Your task to perform on an android device: open sync settings in chrome Image 0: 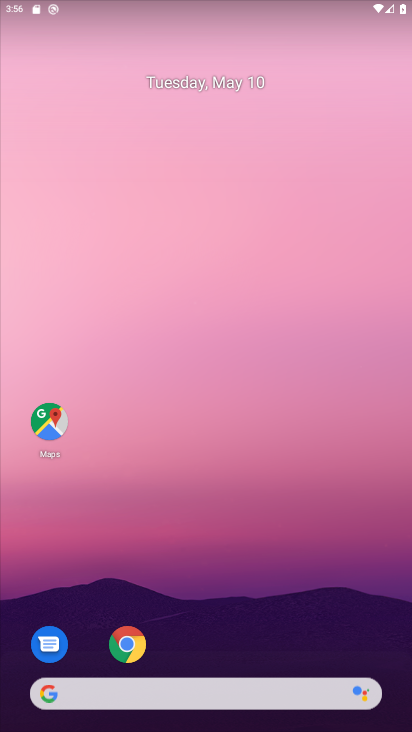
Step 0: click (143, 650)
Your task to perform on an android device: open sync settings in chrome Image 1: 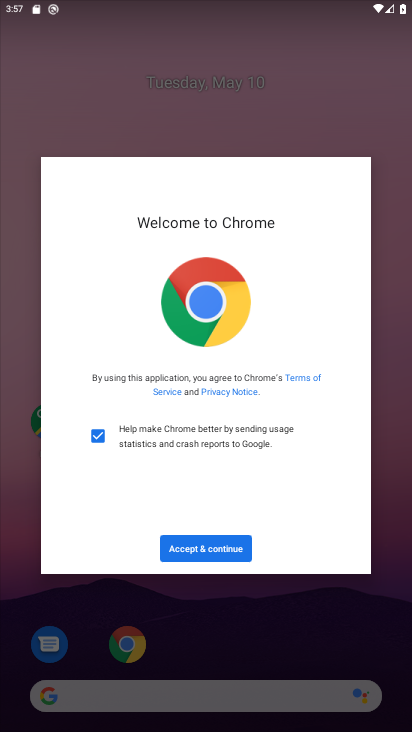
Step 1: click (222, 550)
Your task to perform on an android device: open sync settings in chrome Image 2: 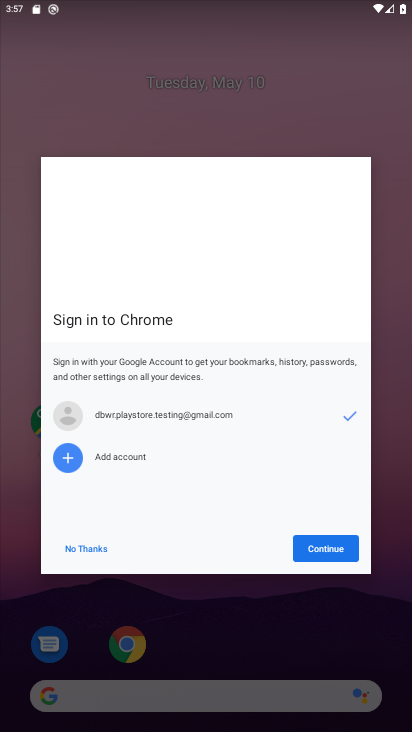
Step 2: click (329, 552)
Your task to perform on an android device: open sync settings in chrome Image 3: 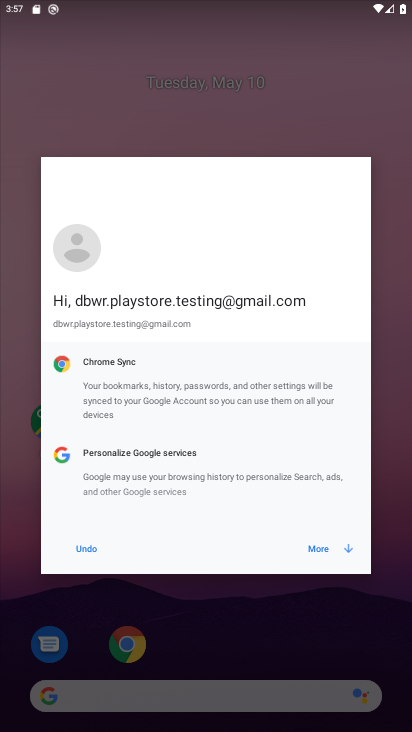
Step 3: click (329, 552)
Your task to perform on an android device: open sync settings in chrome Image 4: 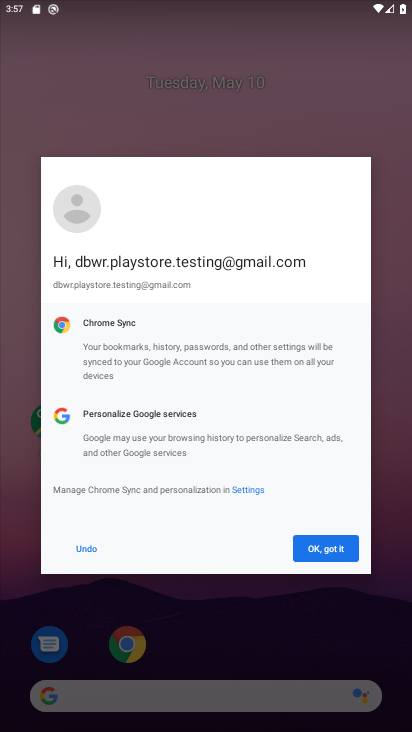
Step 4: click (329, 552)
Your task to perform on an android device: open sync settings in chrome Image 5: 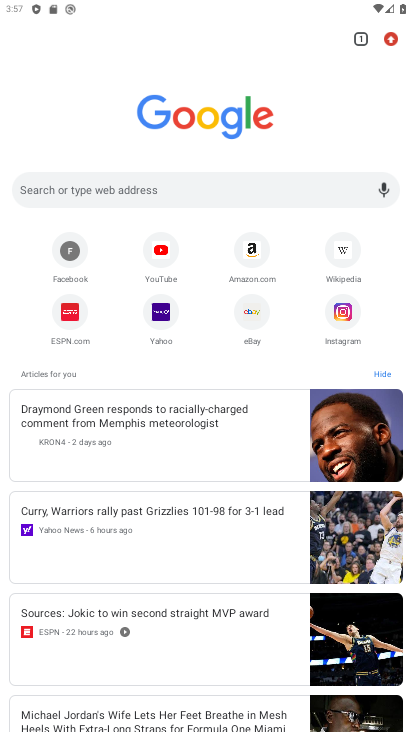
Step 5: click (388, 39)
Your task to perform on an android device: open sync settings in chrome Image 6: 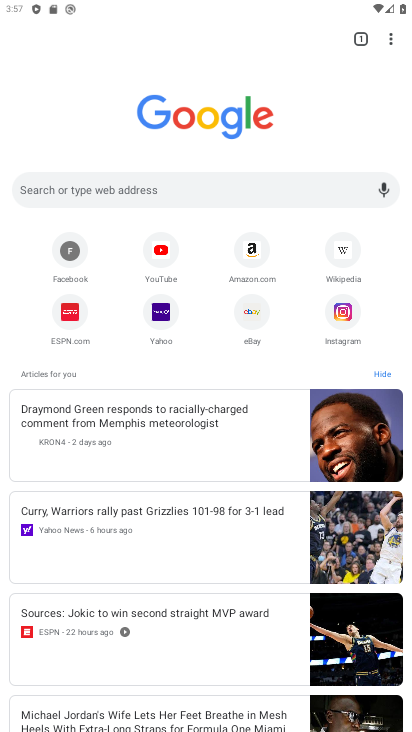
Step 6: click (395, 36)
Your task to perform on an android device: open sync settings in chrome Image 7: 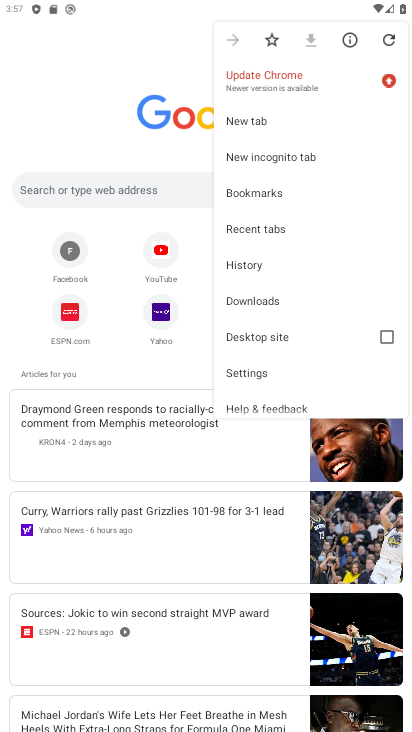
Step 7: click (252, 376)
Your task to perform on an android device: open sync settings in chrome Image 8: 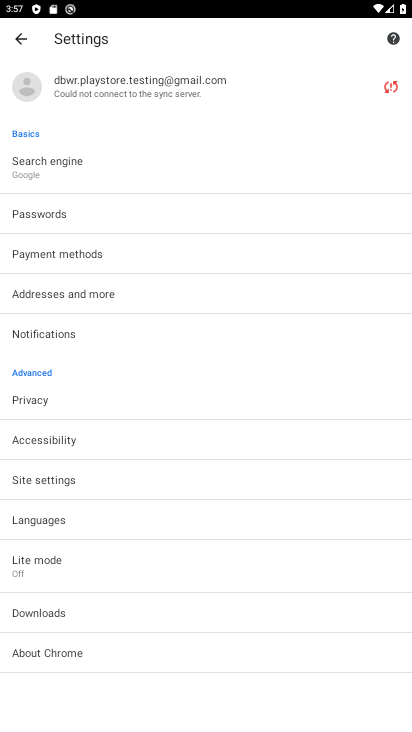
Step 8: click (135, 94)
Your task to perform on an android device: open sync settings in chrome Image 9: 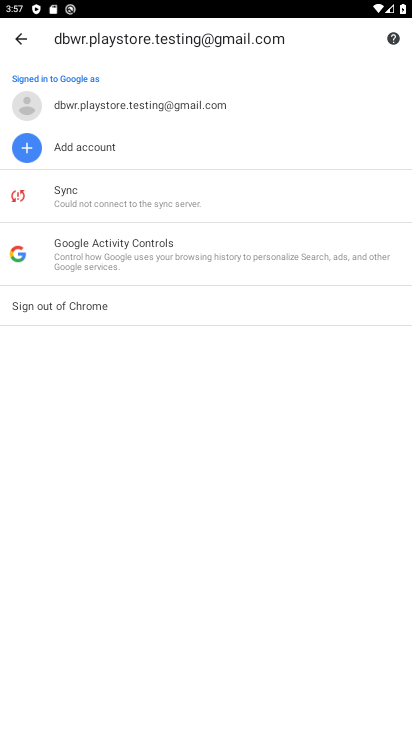
Step 9: click (108, 199)
Your task to perform on an android device: open sync settings in chrome Image 10: 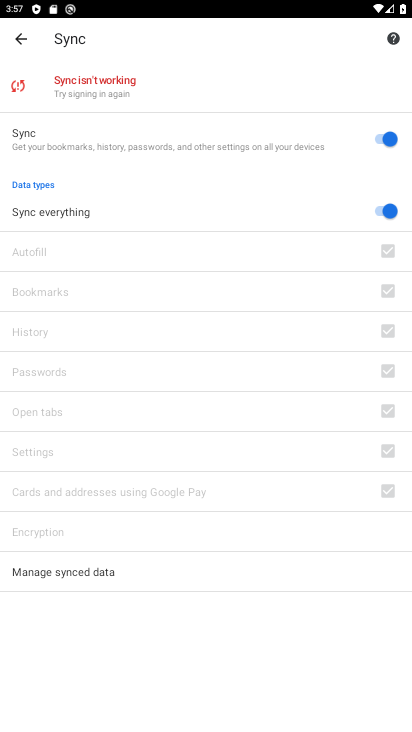
Step 10: task complete